Your task to perform on an android device: open a new tab in the chrome app Image 0: 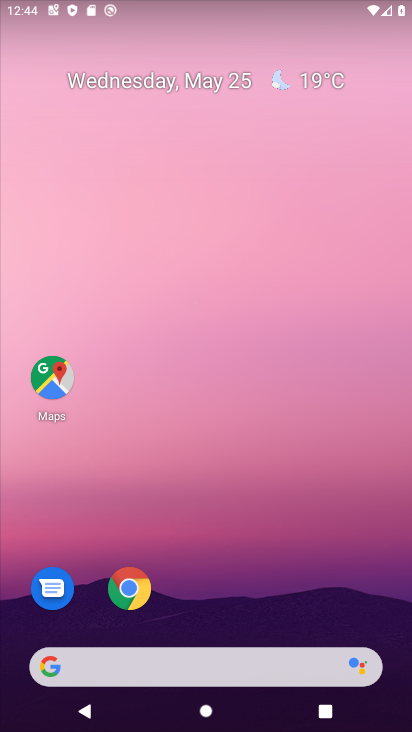
Step 0: click (134, 600)
Your task to perform on an android device: open a new tab in the chrome app Image 1: 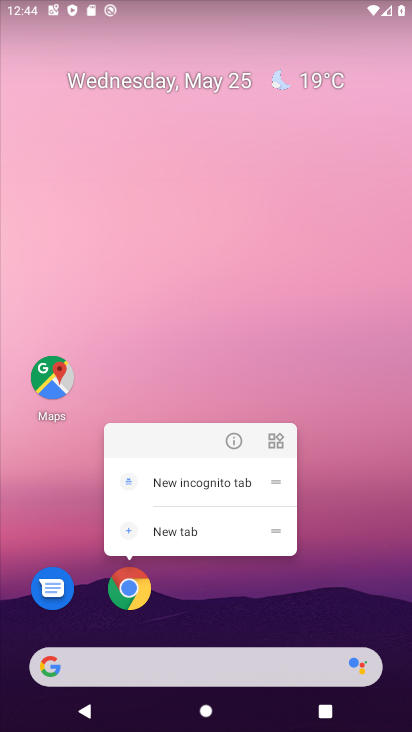
Step 1: click (109, 582)
Your task to perform on an android device: open a new tab in the chrome app Image 2: 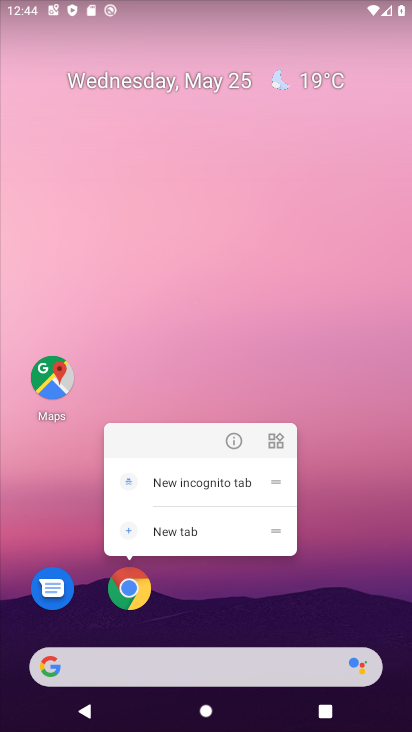
Step 2: click (115, 587)
Your task to perform on an android device: open a new tab in the chrome app Image 3: 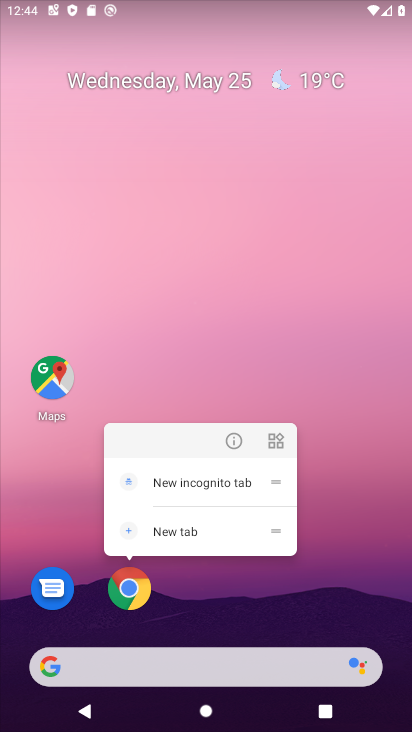
Step 3: click (127, 589)
Your task to perform on an android device: open a new tab in the chrome app Image 4: 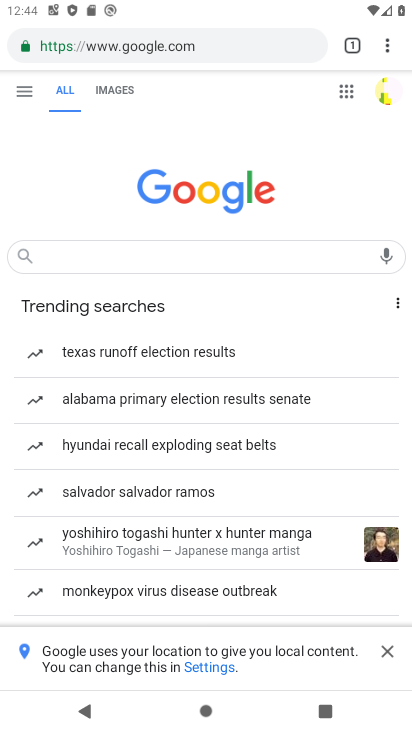
Step 4: task complete